Your task to perform on an android device: turn on the 12-hour format for clock Image 0: 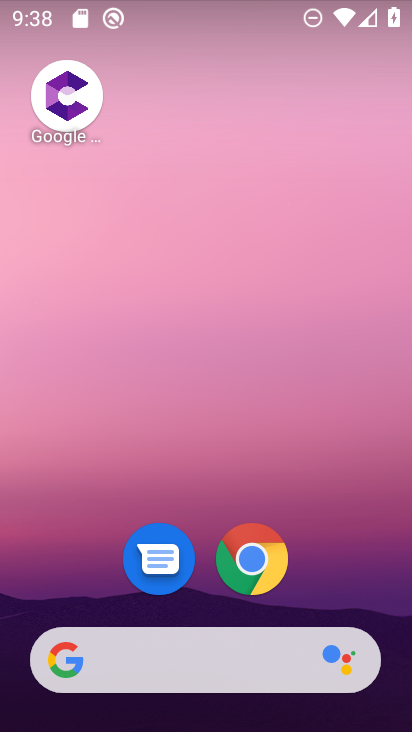
Step 0: drag from (184, 723) to (169, 139)
Your task to perform on an android device: turn on the 12-hour format for clock Image 1: 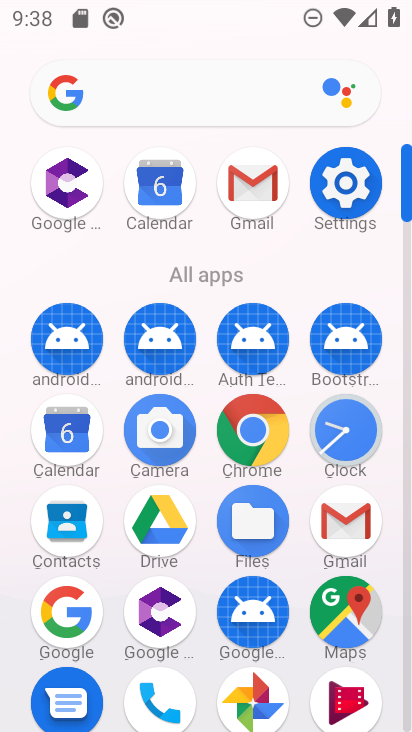
Step 1: click (346, 432)
Your task to perform on an android device: turn on the 12-hour format for clock Image 2: 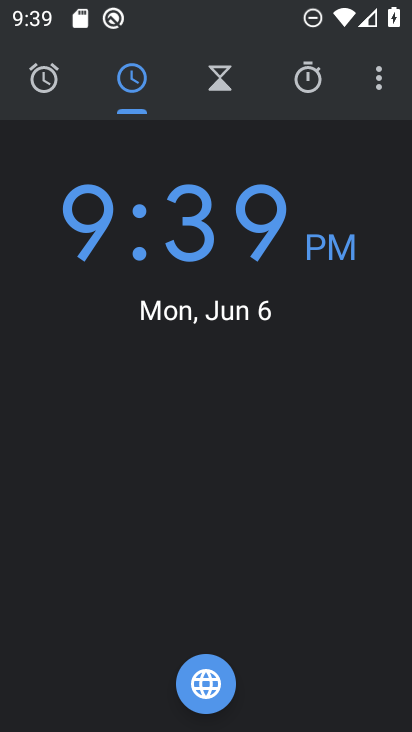
Step 2: click (382, 84)
Your task to perform on an android device: turn on the 12-hour format for clock Image 3: 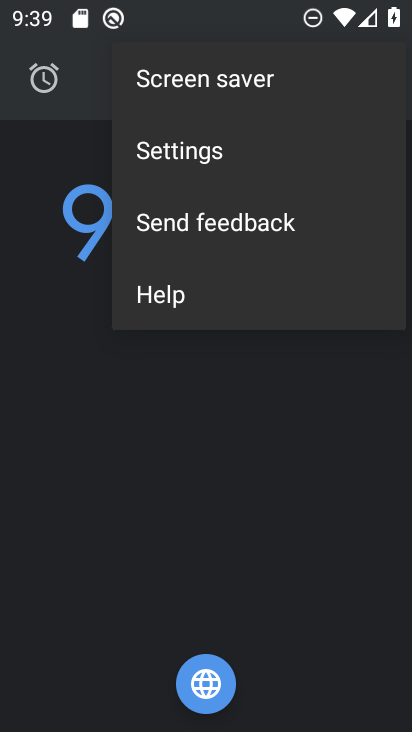
Step 3: click (180, 152)
Your task to perform on an android device: turn on the 12-hour format for clock Image 4: 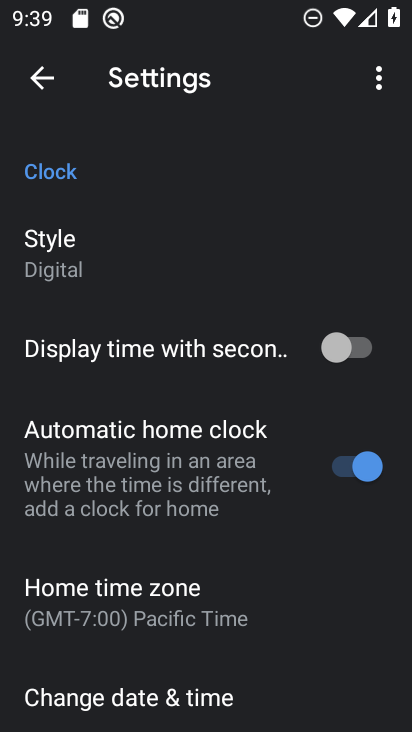
Step 4: click (132, 692)
Your task to perform on an android device: turn on the 12-hour format for clock Image 5: 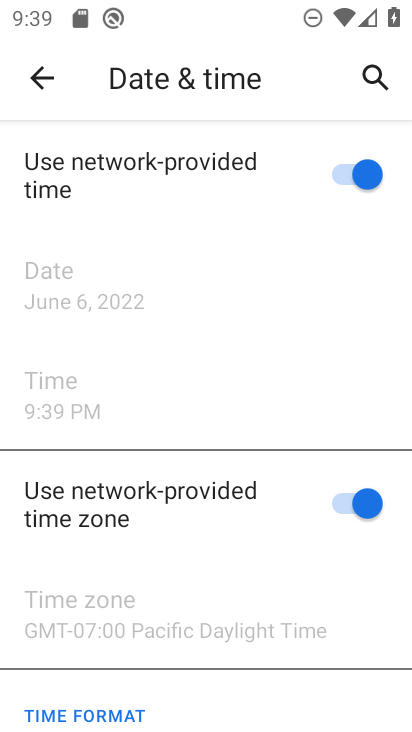
Step 5: task complete